Your task to perform on an android device: Go to Reddit.com Image 0: 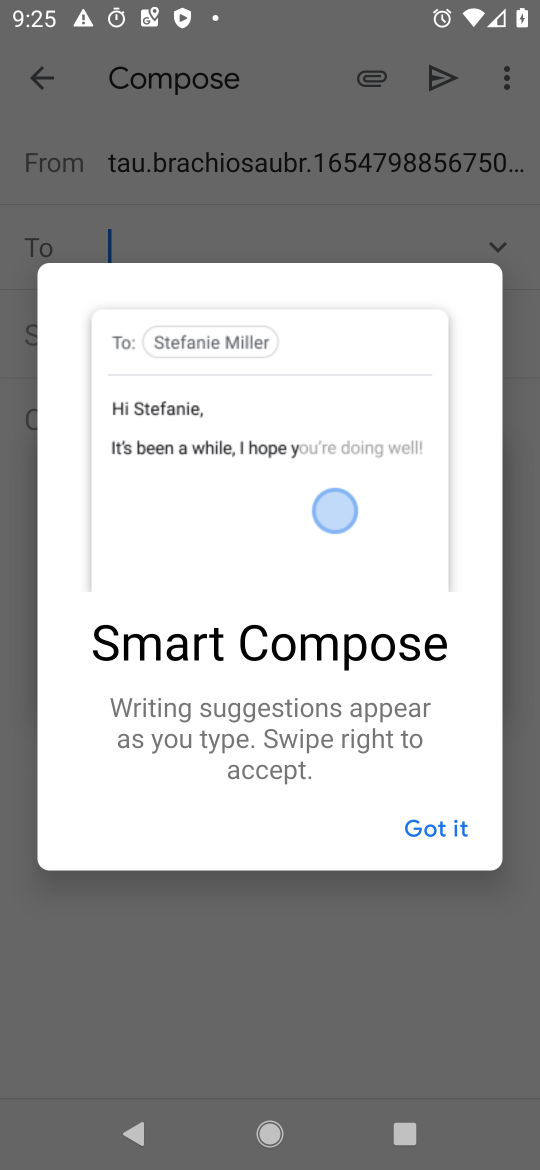
Step 0: press home button
Your task to perform on an android device: Go to Reddit.com Image 1: 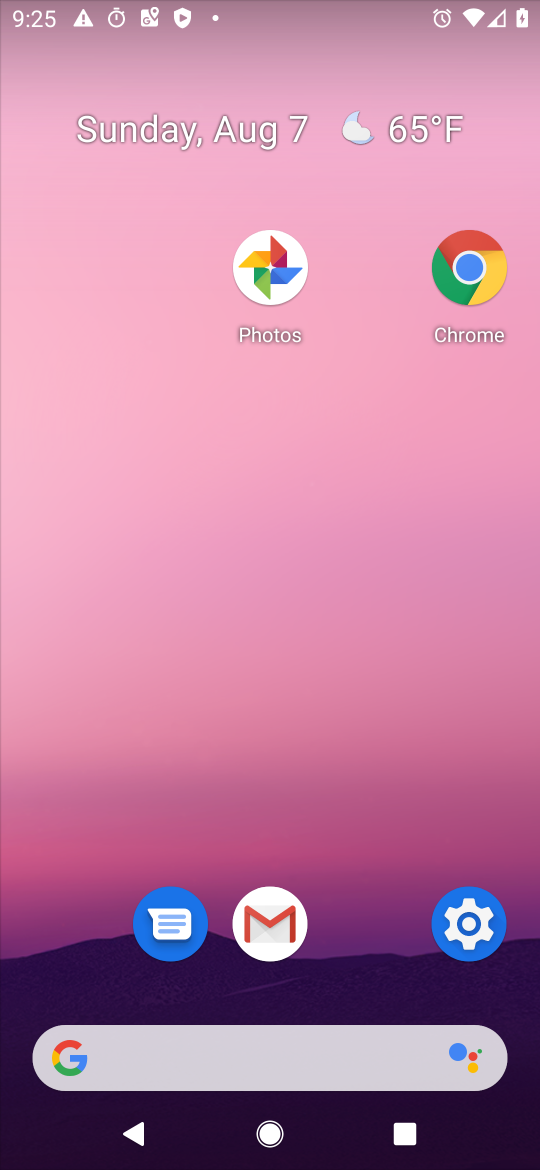
Step 1: click (466, 272)
Your task to perform on an android device: Go to Reddit.com Image 2: 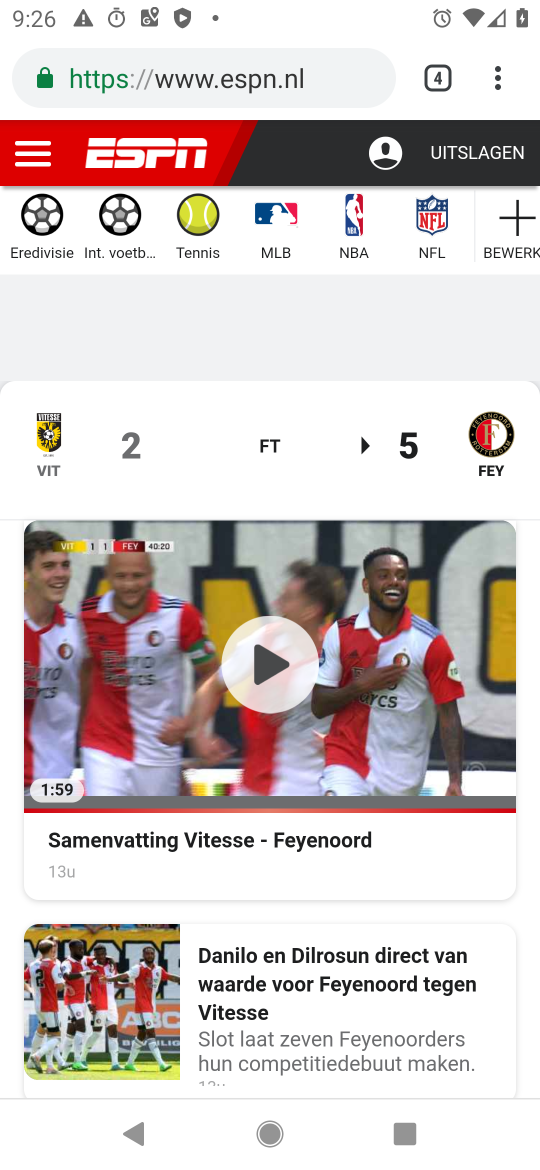
Step 2: click (312, 72)
Your task to perform on an android device: Go to Reddit.com Image 3: 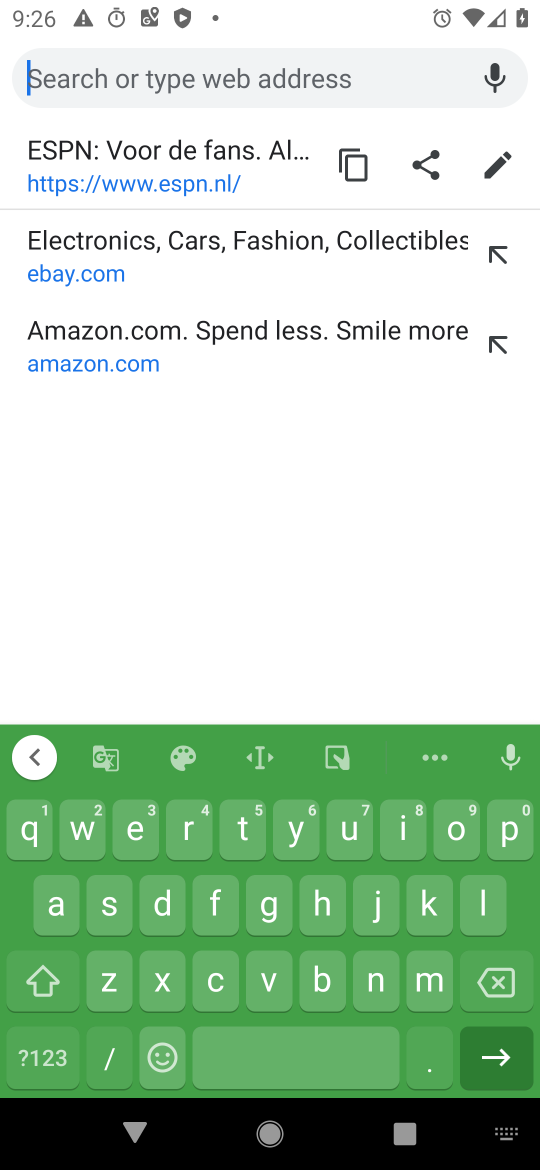
Step 3: click (182, 838)
Your task to perform on an android device: Go to Reddit.com Image 4: 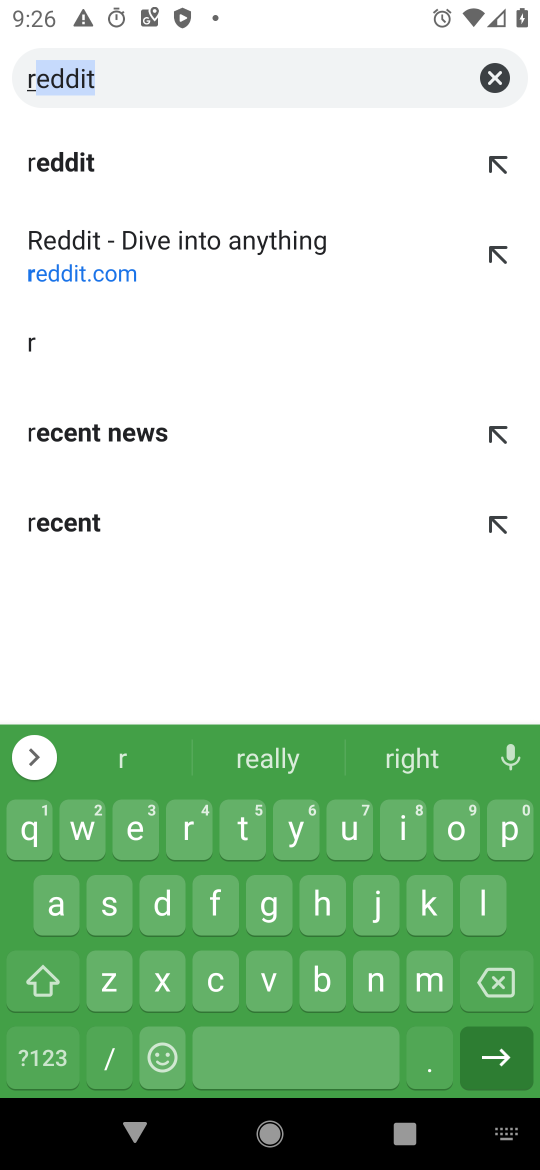
Step 4: click (137, 832)
Your task to perform on an android device: Go to Reddit.com Image 5: 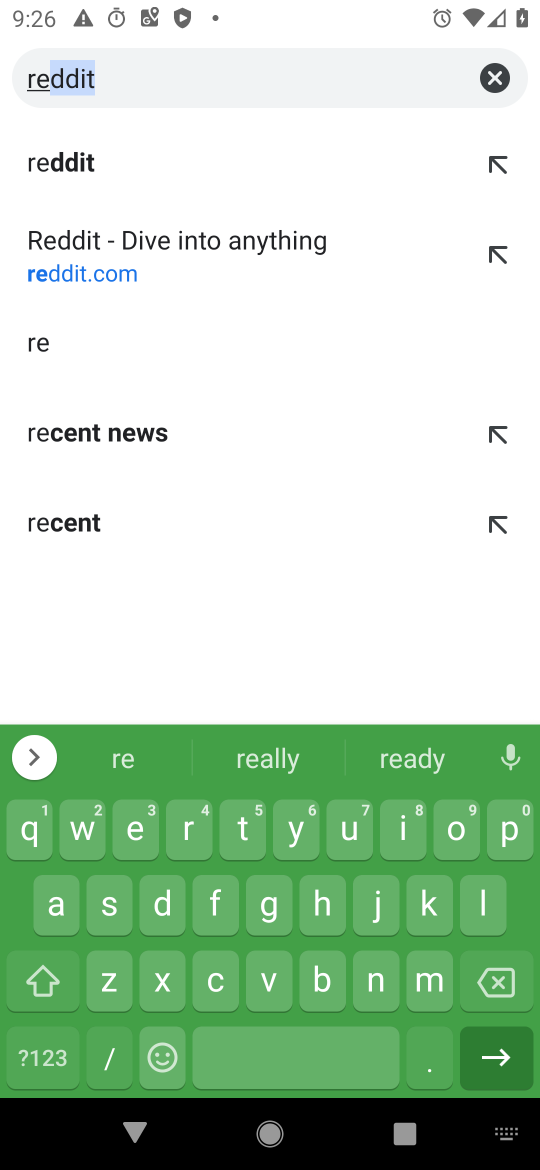
Step 5: click (102, 159)
Your task to perform on an android device: Go to Reddit.com Image 6: 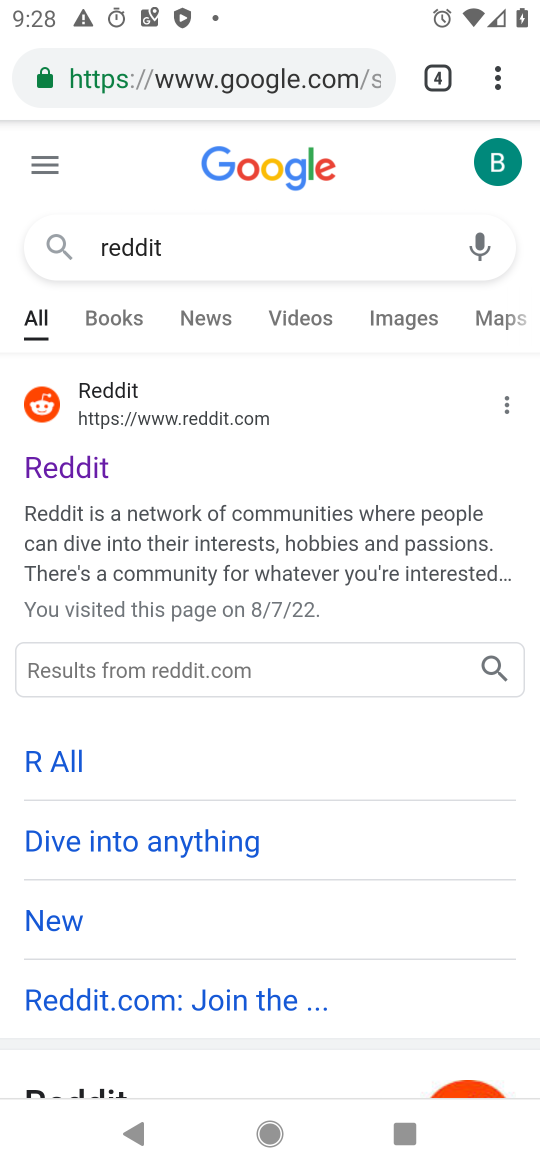
Step 6: click (90, 471)
Your task to perform on an android device: Go to Reddit.com Image 7: 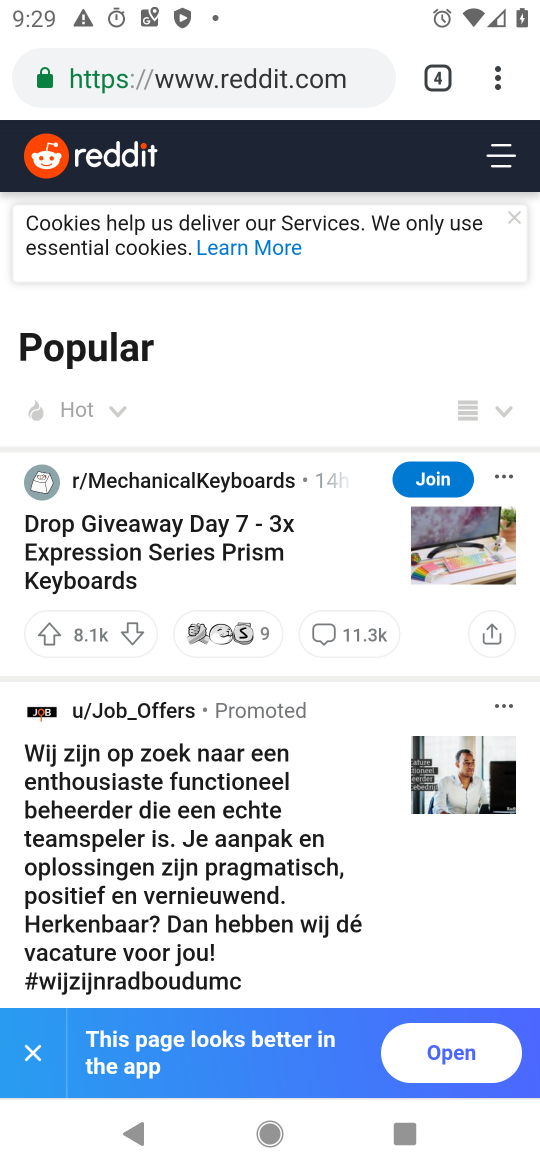
Step 7: task complete